Your task to perform on an android device: change keyboard looks Image 0: 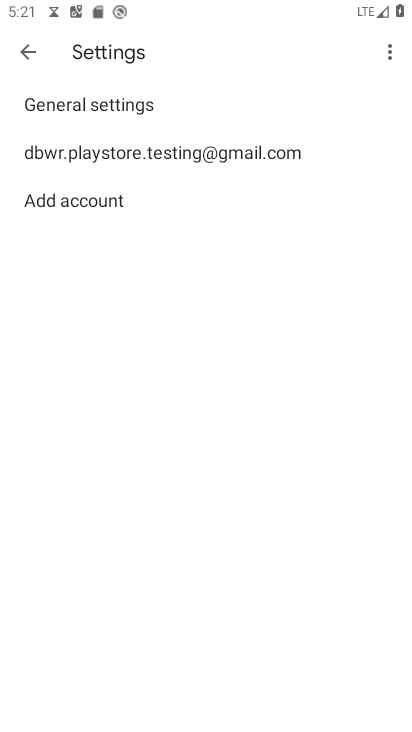
Step 0: drag from (312, 697) to (409, 697)
Your task to perform on an android device: change keyboard looks Image 1: 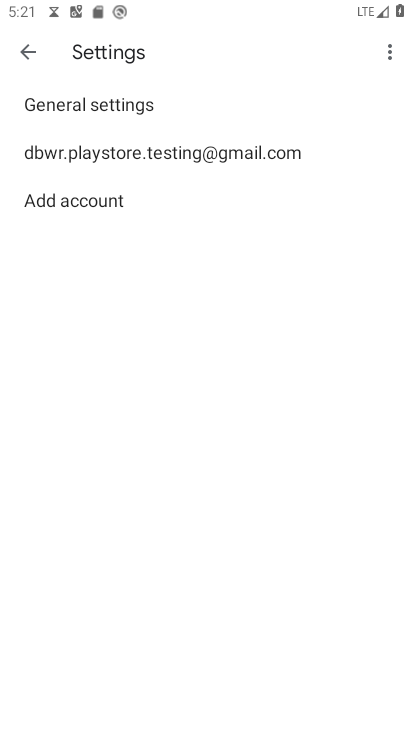
Step 1: press home button
Your task to perform on an android device: change keyboard looks Image 2: 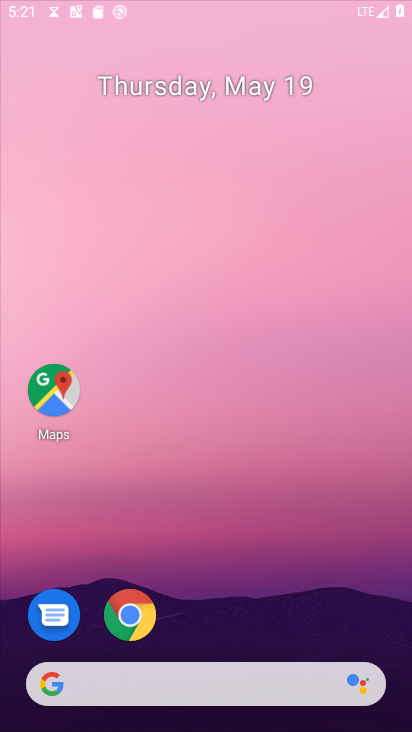
Step 2: drag from (279, 707) to (329, 16)
Your task to perform on an android device: change keyboard looks Image 3: 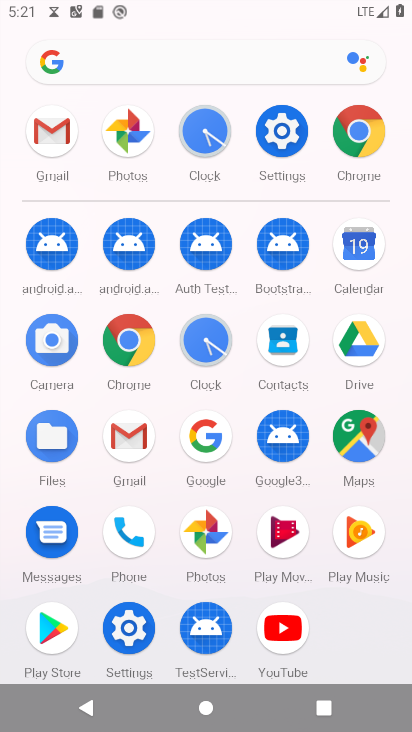
Step 3: click (293, 139)
Your task to perform on an android device: change keyboard looks Image 4: 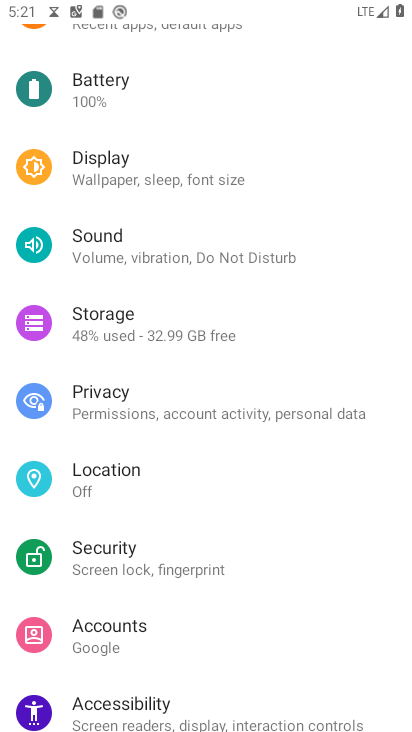
Step 4: drag from (195, 628) to (218, 69)
Your task to perform on an android device: change keyboard looks Image 5: 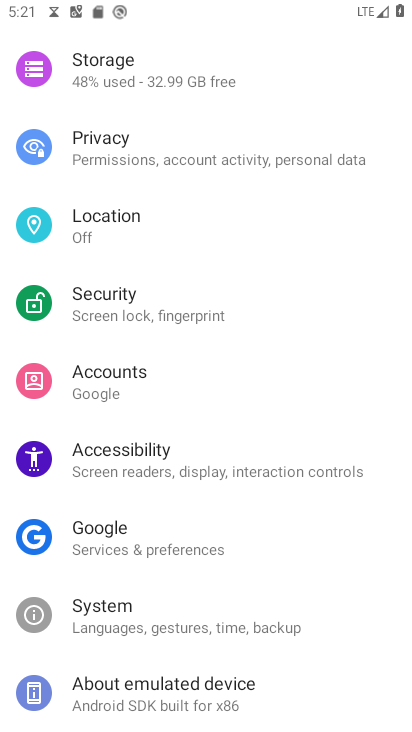
Step 5: click (161, 689)
Your task to perform on an android device: change keyboard looks Image 6: 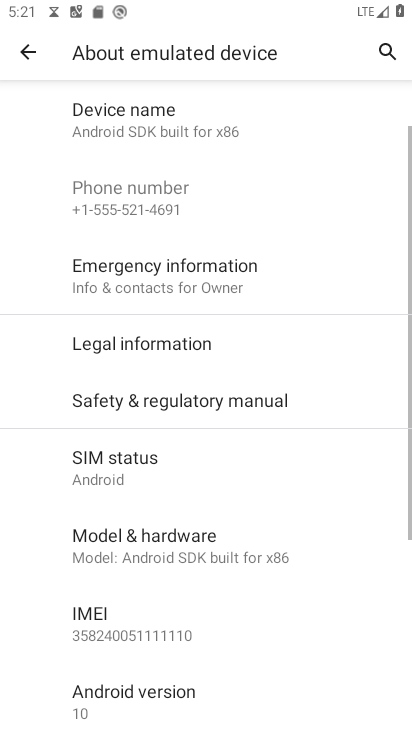
Step 6: press back button
Your task to perform on an android device: change keyboard looks Image 7: 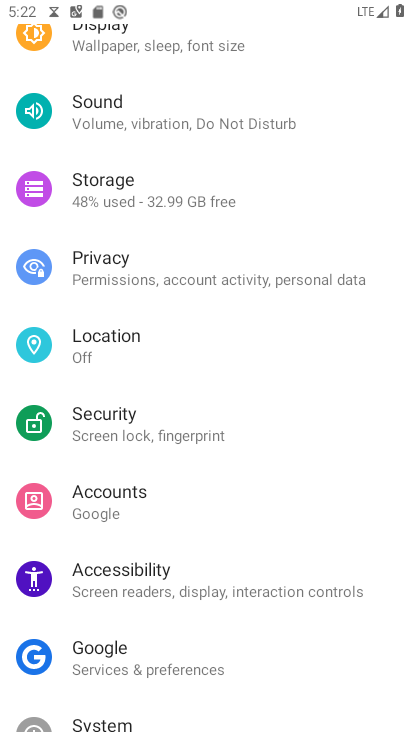
Step 7: click (128, 723)
Your task to perform on an android device: change keyboard looks Image 8: 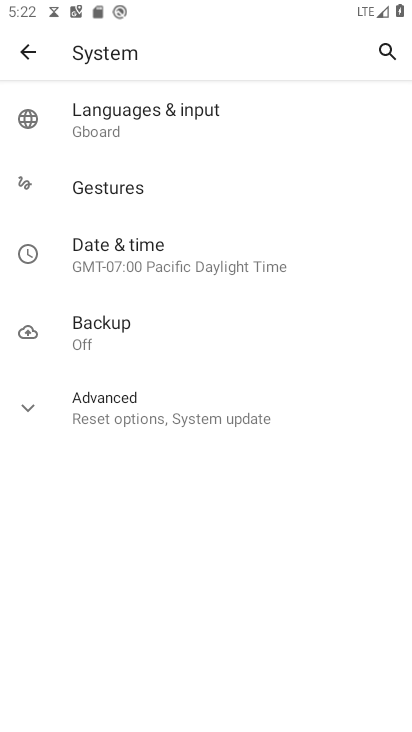
Step 8: click (167, 117)
Your task to perform on an android device: change keyboard looks Image 9: 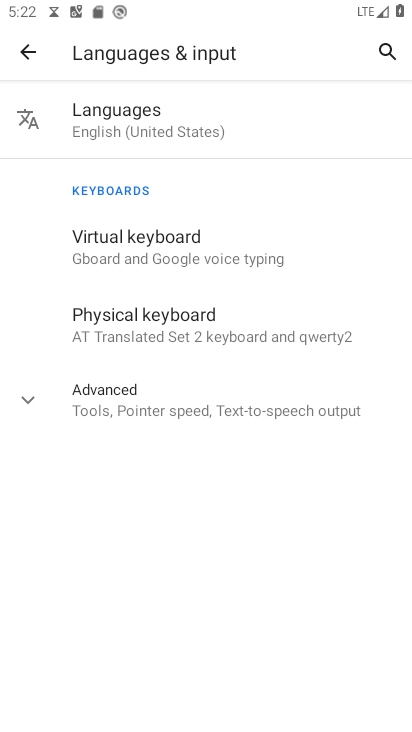
Step 9: click (193, 241)
Your task to perform on an android device: change keyboard looks Image 10: 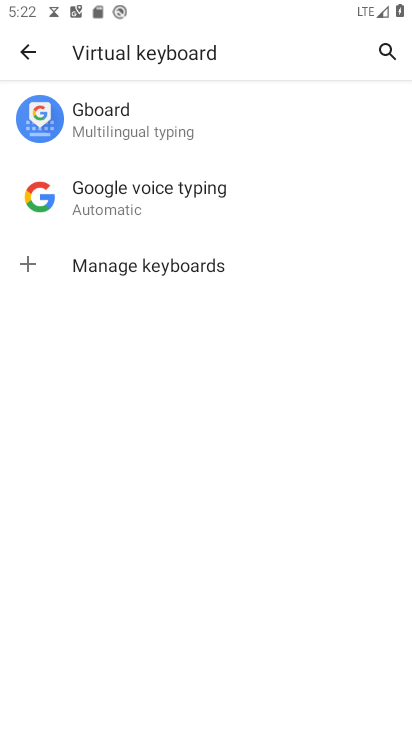
Step 10: click (155, 104)
Your task to perform on an android device: change keyboard looks Image 11: 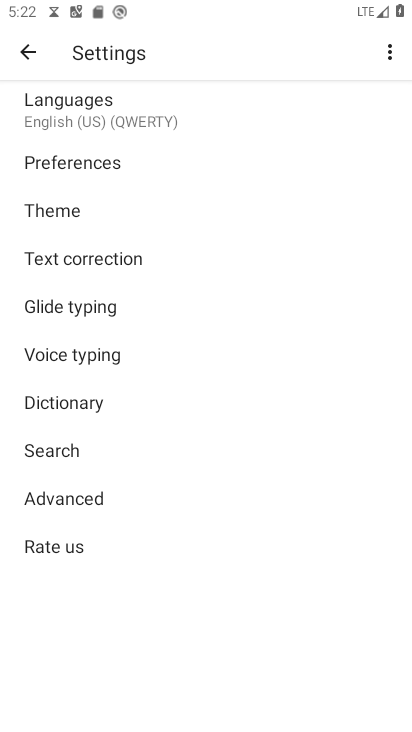
Step 11: click (58, 211)
Your task to perform on an android device: change keyboard looks Image 12: 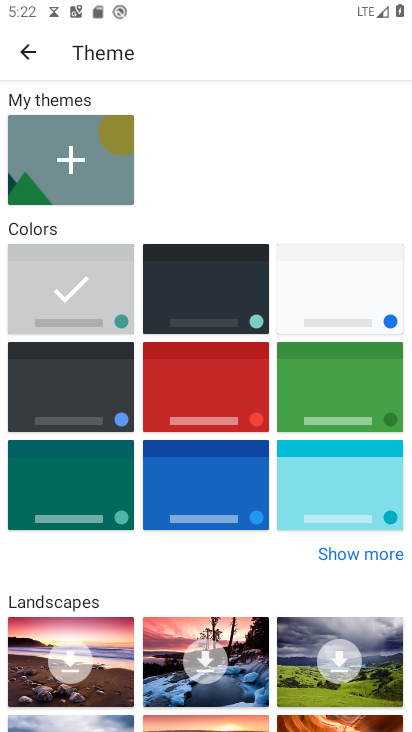
Step 12: click (207, 393)
Your task to perform on an android device: change keyboard looks Image 13: 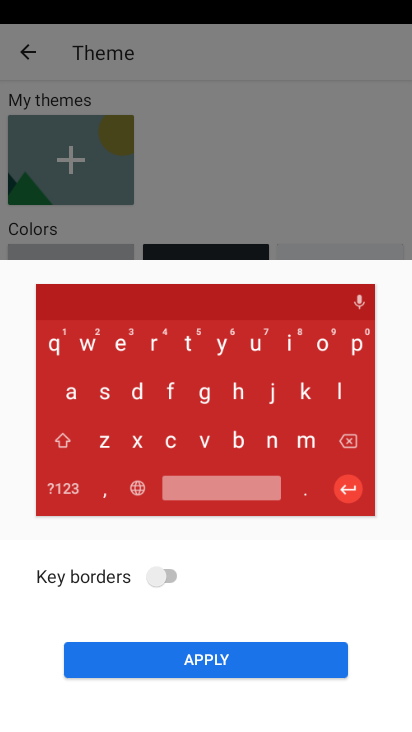
Step 13: click (255, 671)
Your task to perform on an android device: change keyboard looks Image 14: 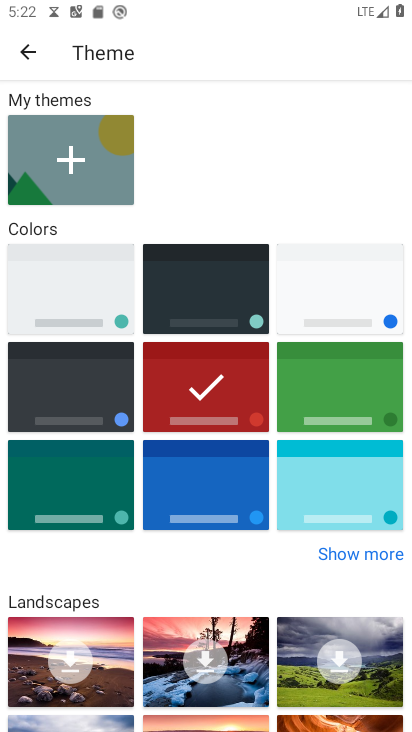
Step 14: task complete